Your task to perform on an android device: change timer sound Image 0: 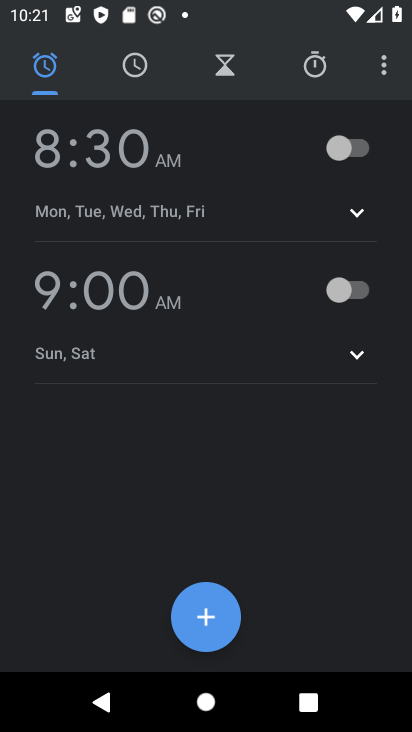
Step 0: press home button
Your task to perform on an android device: change timer sound Image 1: 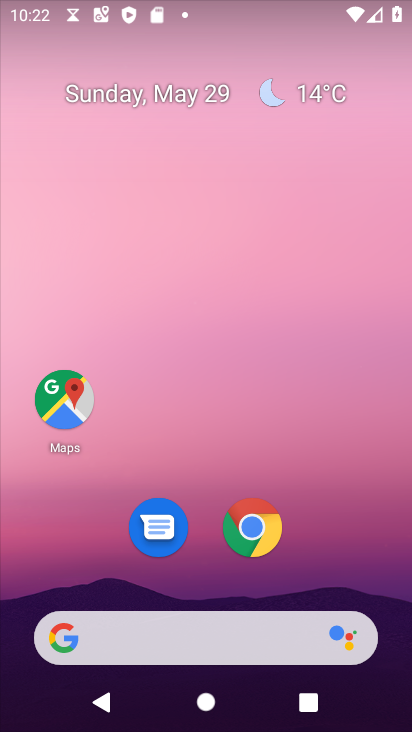
Step 1: drag from (164, 635) to (266, 147)
Your task to perform on an android device: change timer sound Image 2: 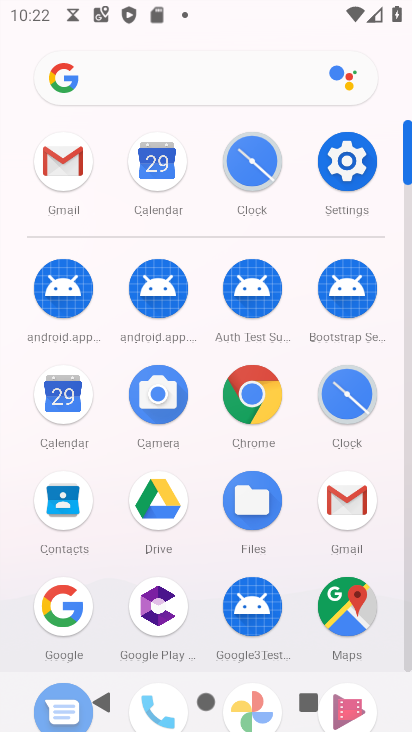
Step 2: click (358, 174)
Your task to perform on an android device: change timer sound Image 3: 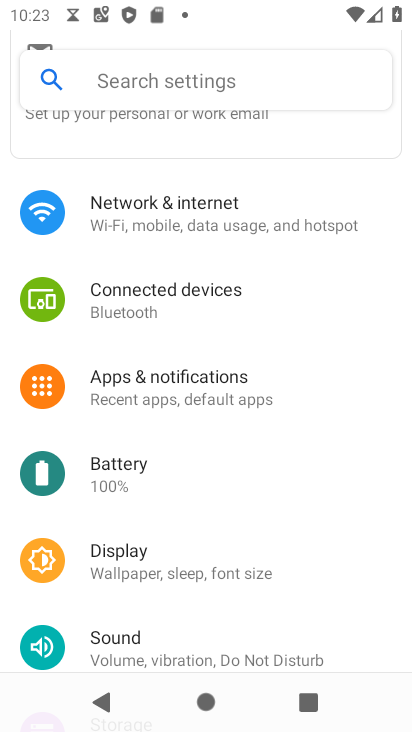
Step 3: press home button
Your task to perform on an android device: change timer sound Image 4: 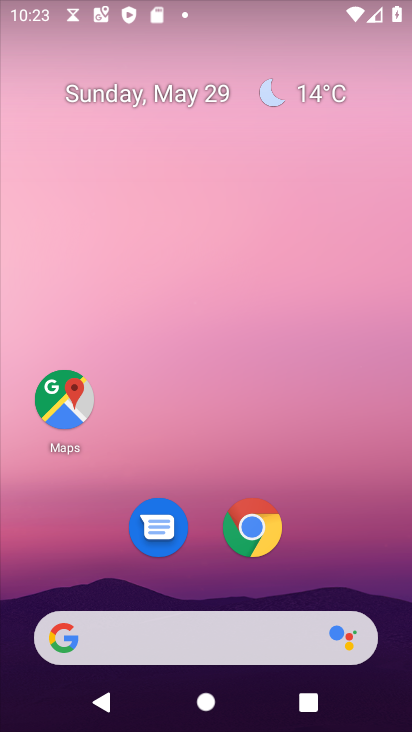
Step 4: drag from (203, 641) to (308, 145)
Your task to perform on an android device: change timer sound Image 5: 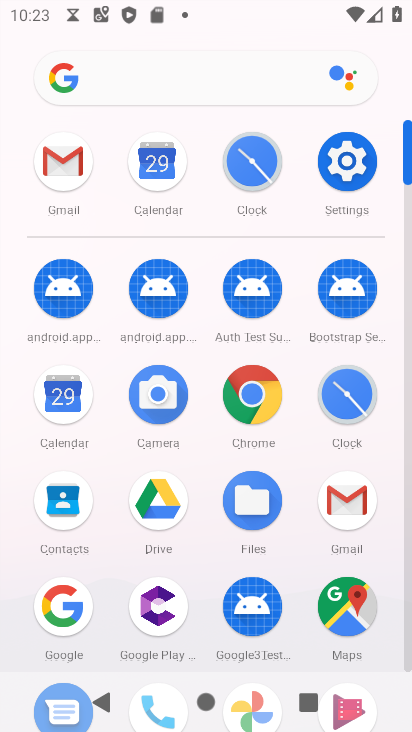
Step 5: click (341, 406)
Your task to perform on an android device: change timer sound Image 6: 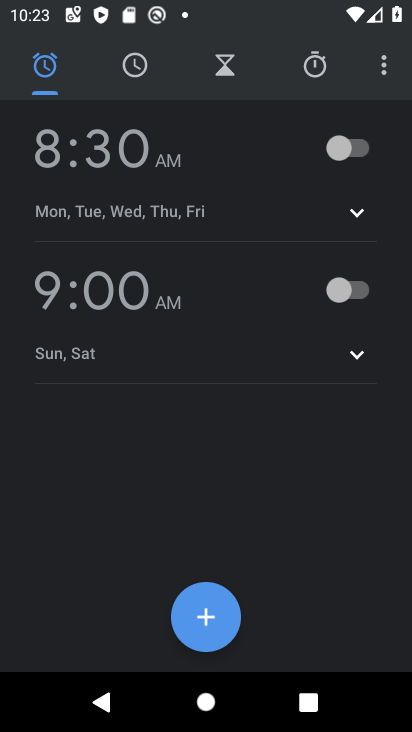
Step 6: click (384, 65)
Your task to perform on an android device: change timer sound Image 7: 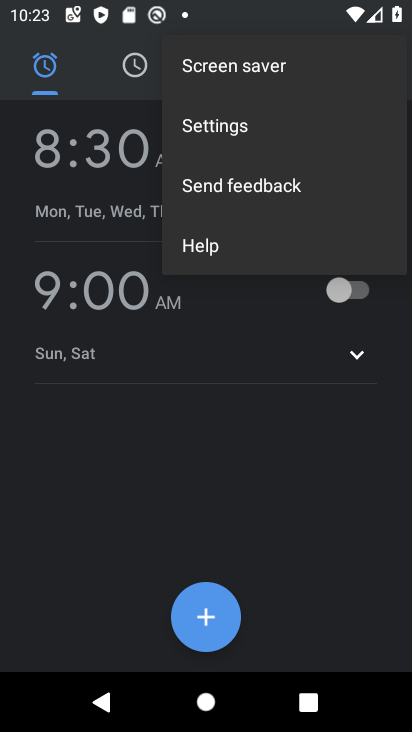
Step 7: click (227, 127)
Your task to perform on an android device: change timer sound Image 8: 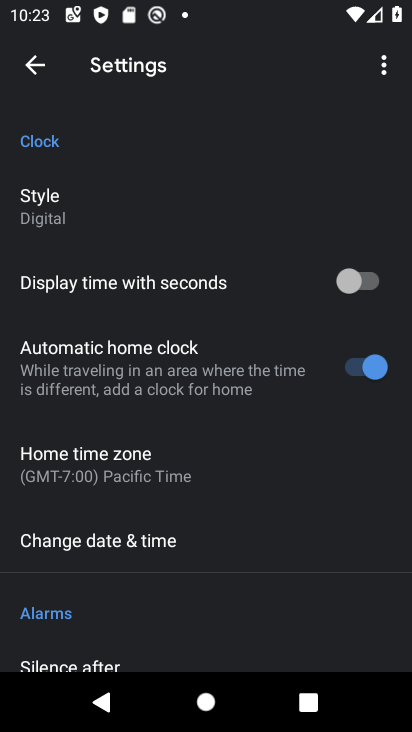
Step 8: drag from (143, 610) to (285, 52)
Your task to perform on an android device: change timer sound Image 9: 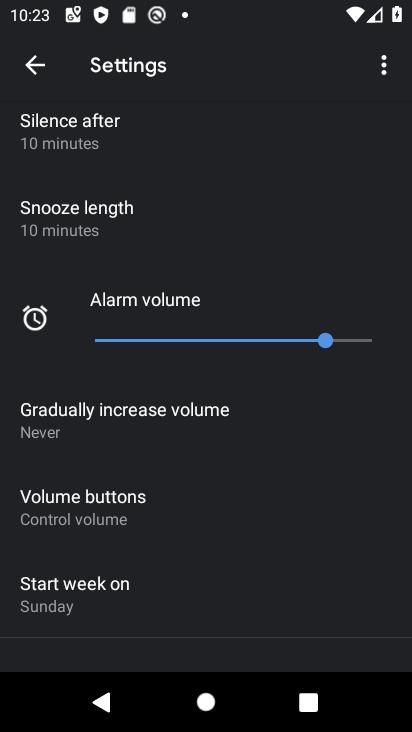
Step 9: drag from (198, 565) to (361, 48)
Your task to perform on an android device: change timer sound Image 10: 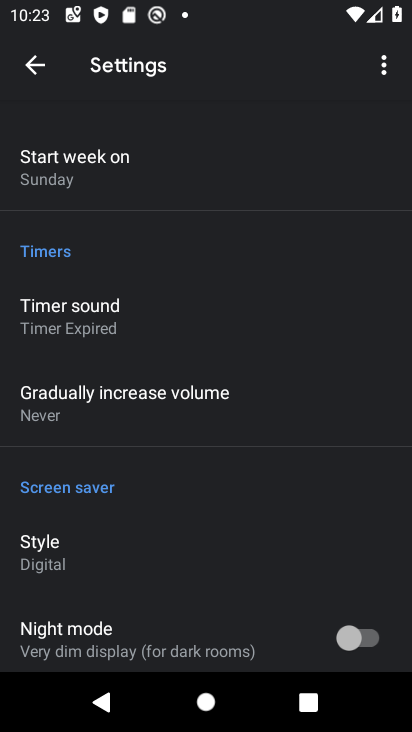
Step 10: drag from (134, 539) to (241, 264)
Your task to perform on an android device: change timer sound Image 11: 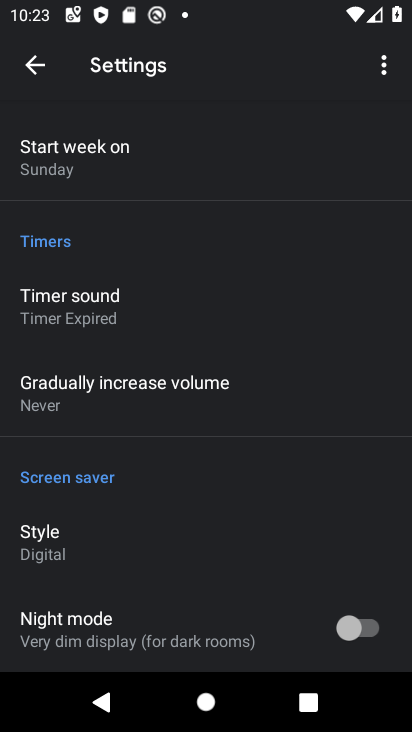
Step 11: click (82, 312)
Your task to perform on an android device: change timer sound Image 12: 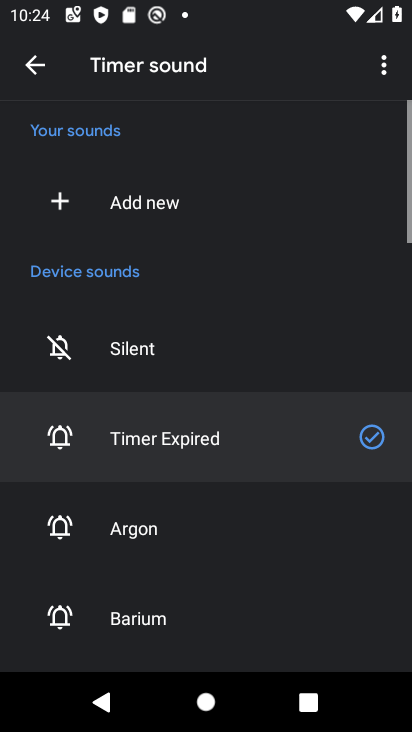
Step 12: click (130, 531)
Your task to perform on an android device: change timer sound Image 13: 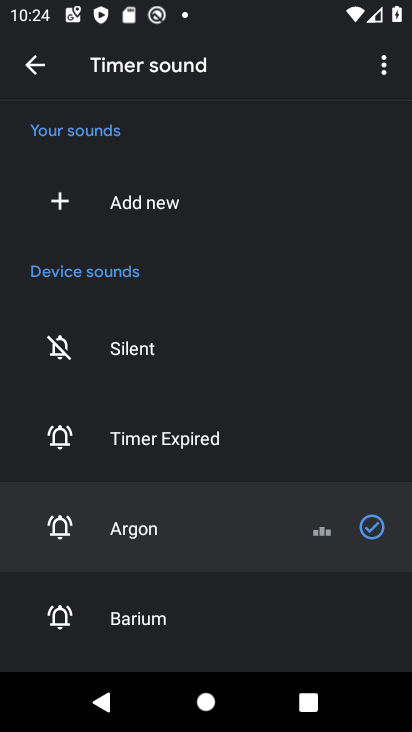
Step 13: task complete